Your task to perform on an android device: Open my contact list Image 0: 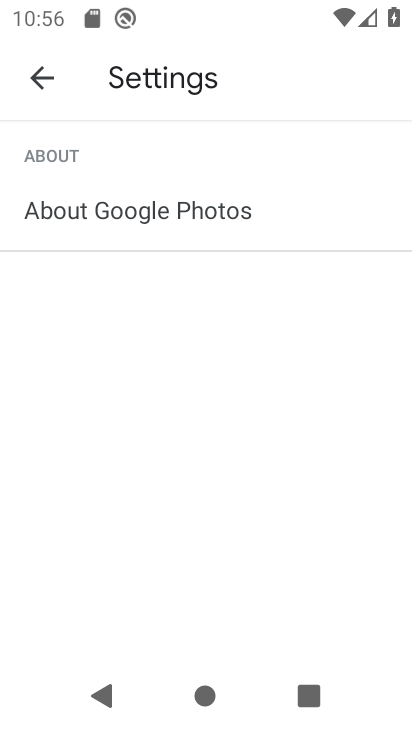
Step 0: press back button
Your task to perform on an android device: Open my contact list Image 1: 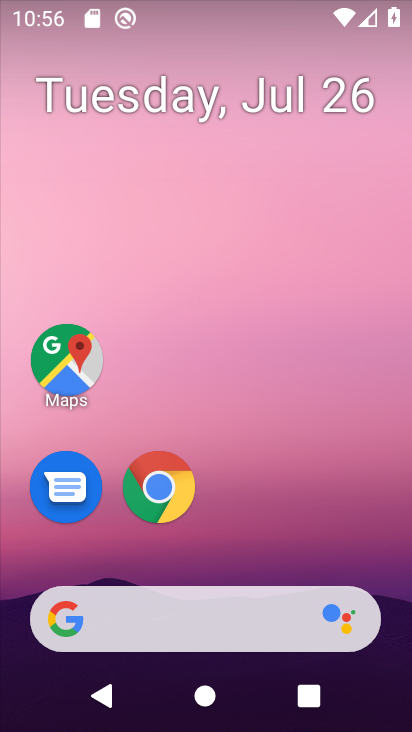
Step 1: drag from (242, 533) to (292, 0)
Your task to perform on an android device: Open my contact list Image 2: 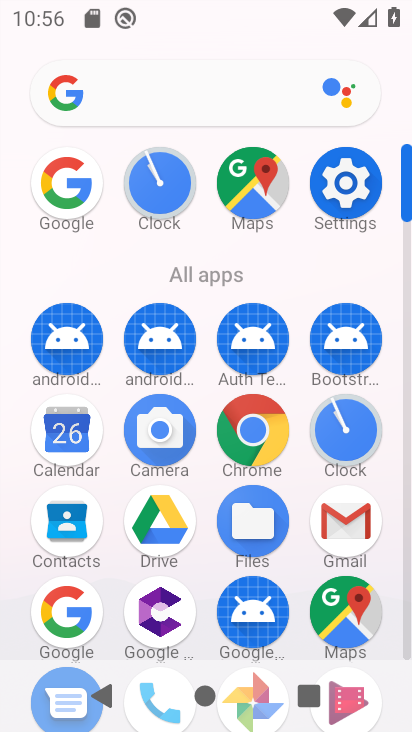
Step 2: click (59, 526)
Your task to perform on an android device: Open my contact list Image 3: 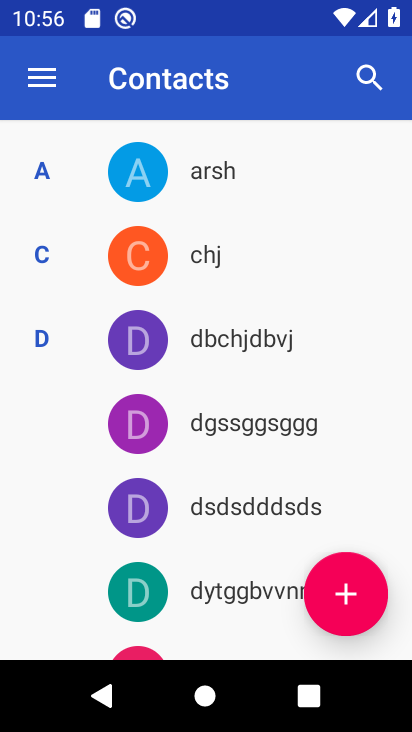
Step 3: task complete